Your task to perform on an android device: check storage Image 0: 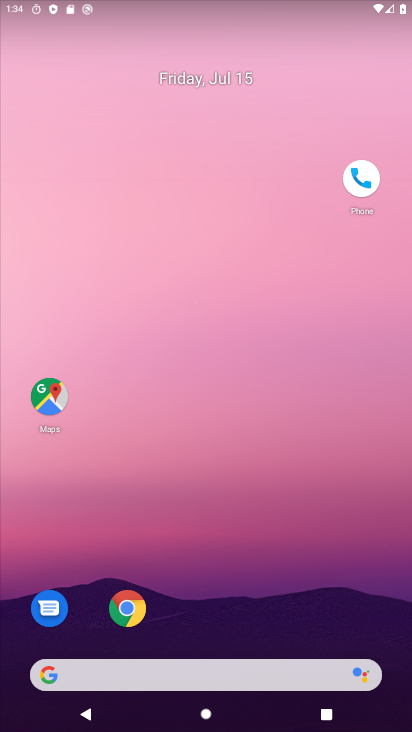
Step 0: drag from (181, 646) to (203, 19)
Your task to perform on an android device: check storage Image 1: 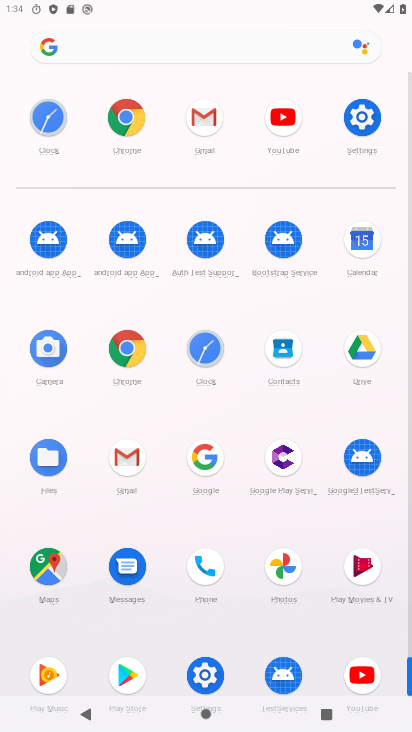
Step 1: drag from (231, 590) to (236, 248)
Your task to perform on an android device: check storage Image 2: 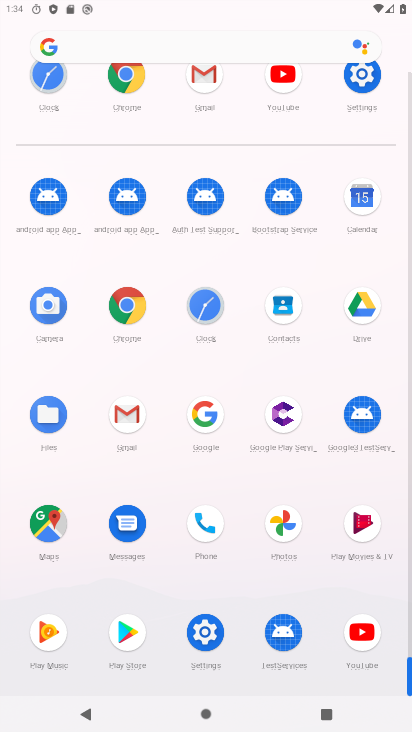
Step 2: click (200, 627)
Your task to perform on an android device: check storage Image 3: 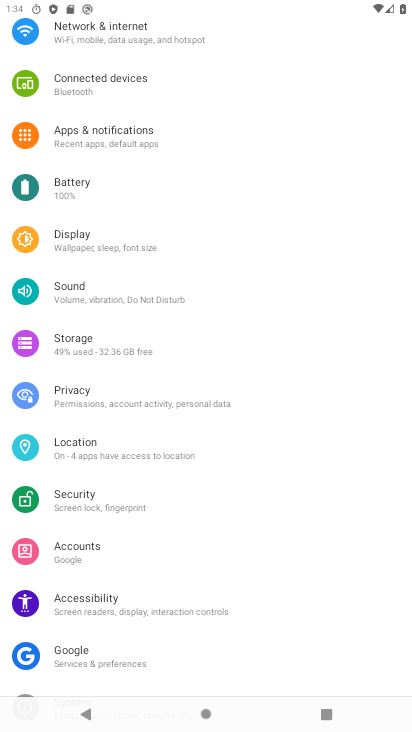
Step 3: click (130, 348)
Your task to perform on an android device: check storage Image 4: 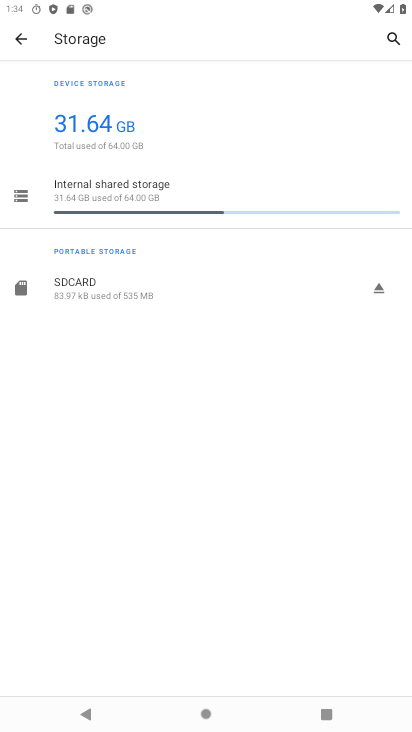
Step 4: task complete